Your task to perform on an android device: clear all cookies in the chrome app Image 0: 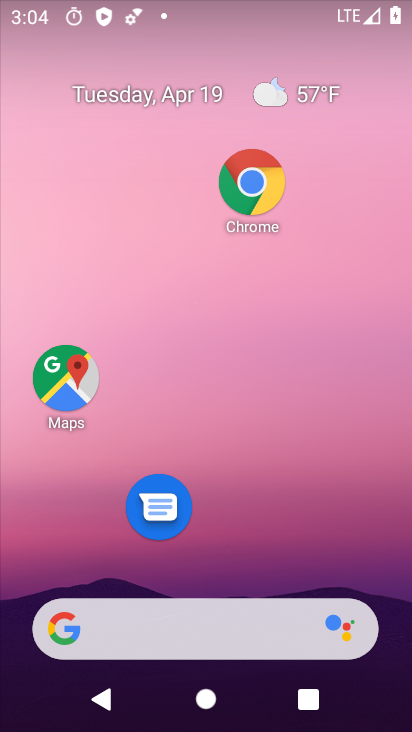
Step 0: drag from (246, 548) to (274, 162)
Your task to perform on an android device: clear all cookies in the chrome app Image 1: 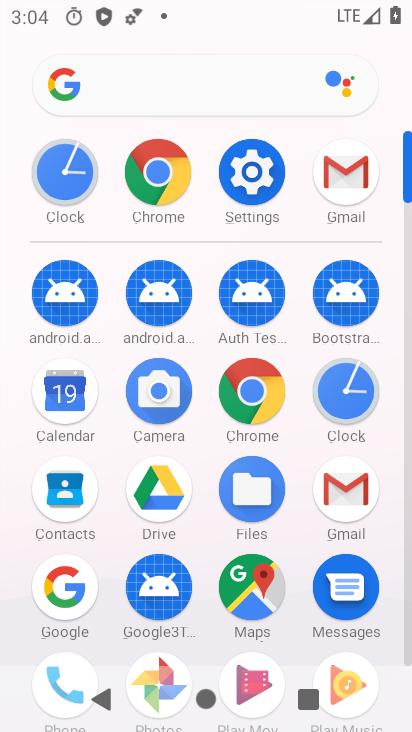
Step 1: click (273, 402)
Your task to perform on an android device: clear all cookies in the chrome app Image 2: 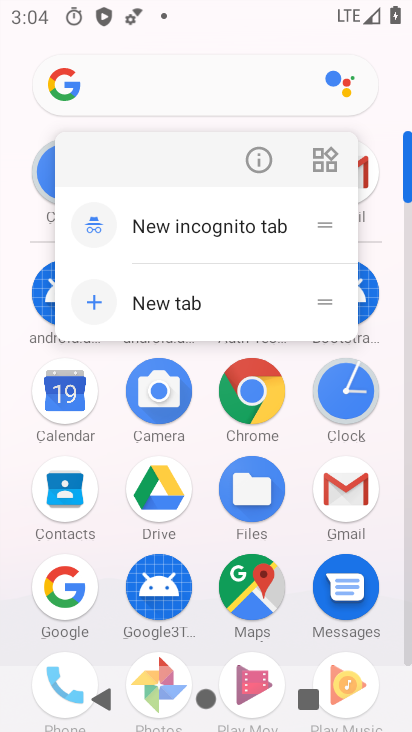
Step 2: click (272, 402)
Your task to perform on an android device: clear all cookies in the chrome app Image 3: 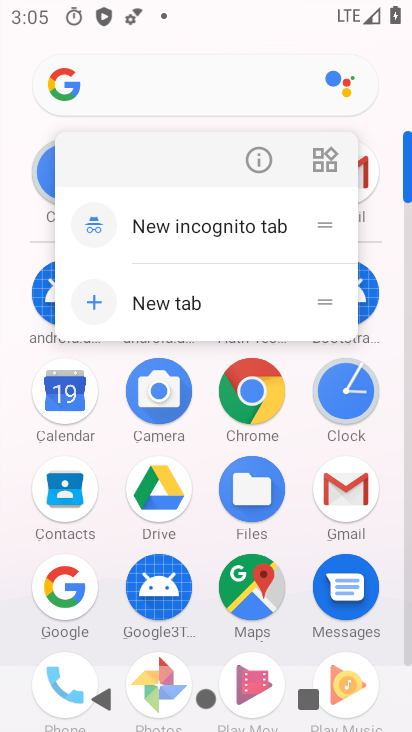
Step 3: click (265, 411)
Your task to perform on an android device: clear all cookies in the chrome app Image 4: 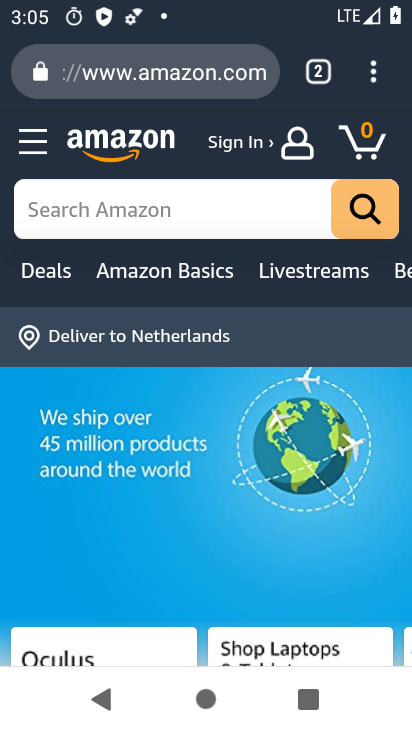
Step 4: click (374, 80)
Your task to perform on an android device: clear all cookies in the chrome app Image 5: 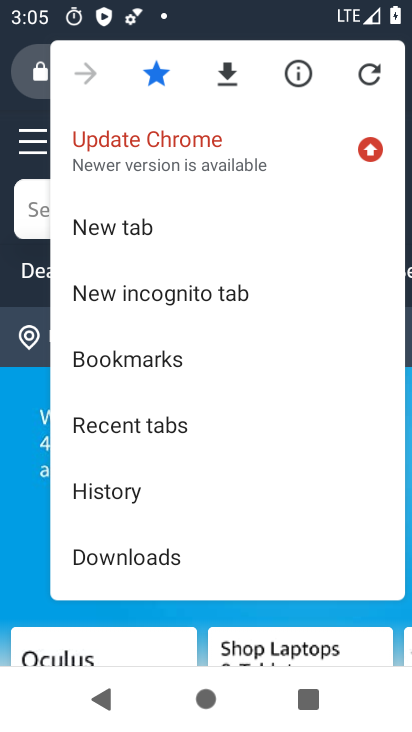
Step 5: drag from (329, 435) to (358, 142)
Your task to perform on an android device: clear all cookies in the chrome app Image 6: 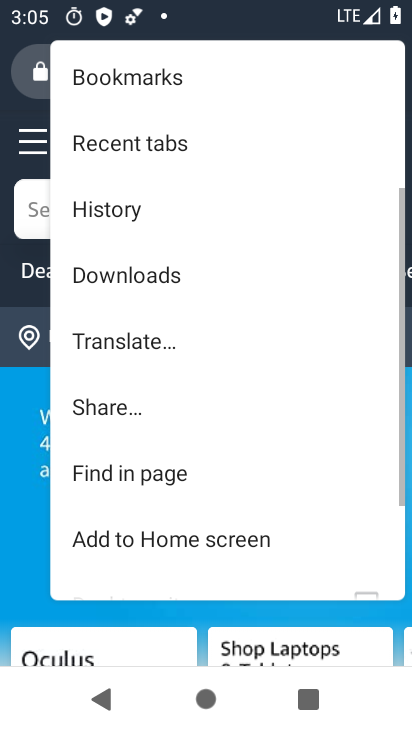
Step 6: drag from (247, 400) to (243, 163)
Your task to perform on an android device: clear all cookies in the chrome app Image 7: 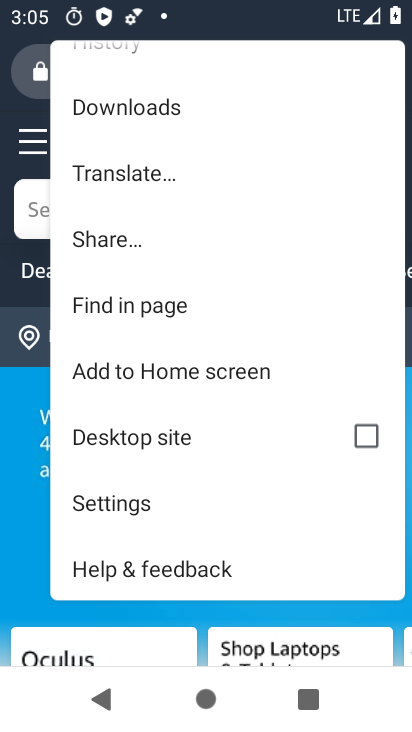
Step 7: click (209, 509)
Your task to perform on an android device: clear all cookies in the chrome app Image 8: 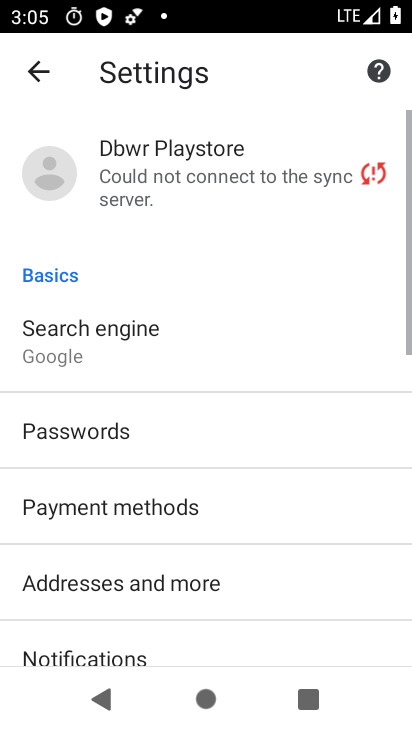
Step 8: drag from (200, 524) to (235, 211)
Your task to perform on an android device: clear all cookies in the chrome app Image 9: 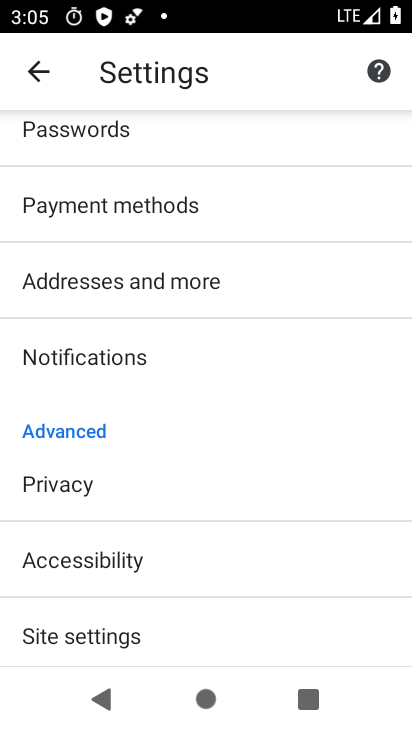
Step 9: click (110, 705)
Your task to perform on an android device: clear all cookies in the chrome app Image 10: 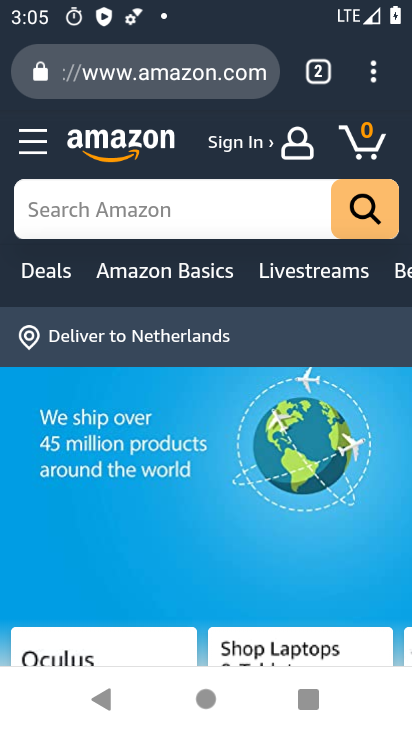
Step 10: click (375, 77)
Your task to perform on an android device: clear all cookies in the chrome app Image 11: 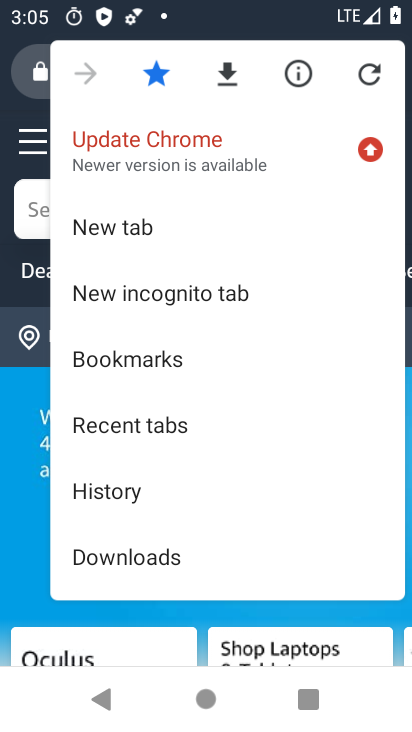
Step 11: click (140, 488)
Your task to perform on an android device: clear all cookies in the chrome app Image 12: 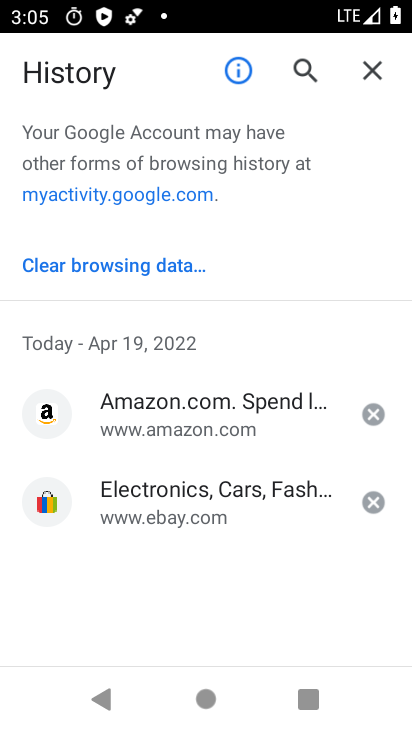
Step 12: click (154, 268)
Your task to perform on an android device: clear all cookies in the chrome app Image 13: 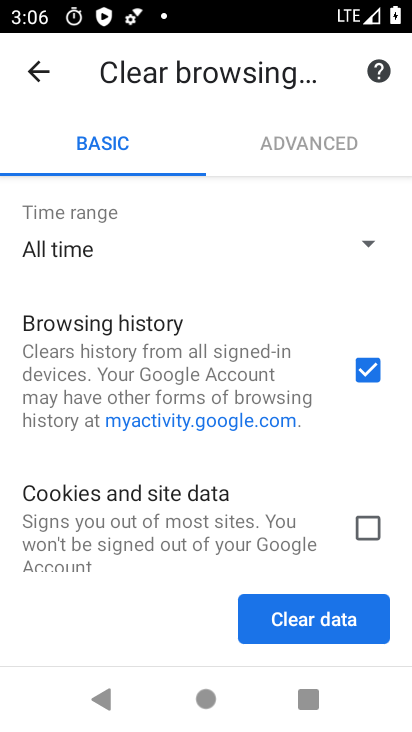
Step 13: click (370, 368)
Your task to perform on an android device: clear all cookies in the chrome app Image 14: 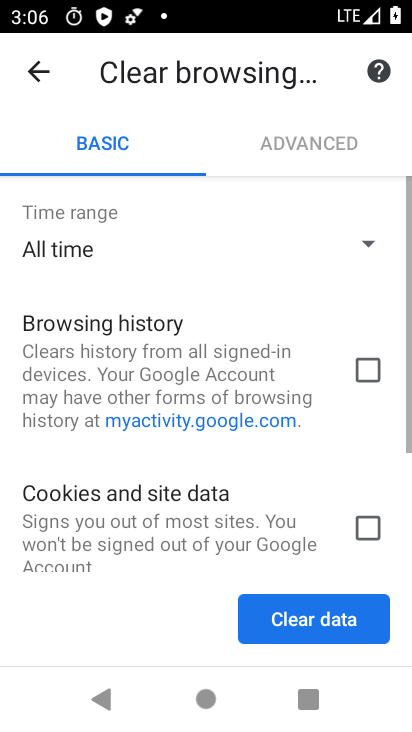
Step 14: click (370, 531)
Your task to perform on an android device: clear all cookies in the chrome app Image 15: 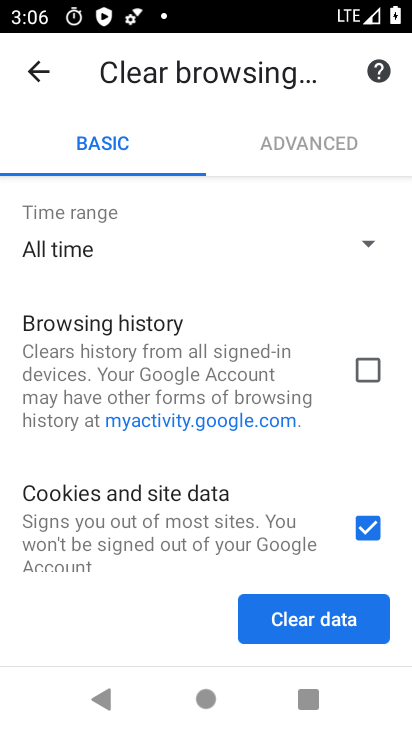
Step 15: click (337, 623)
Your task to perform on an android device: clear all cookies in the chrome app Image 16: 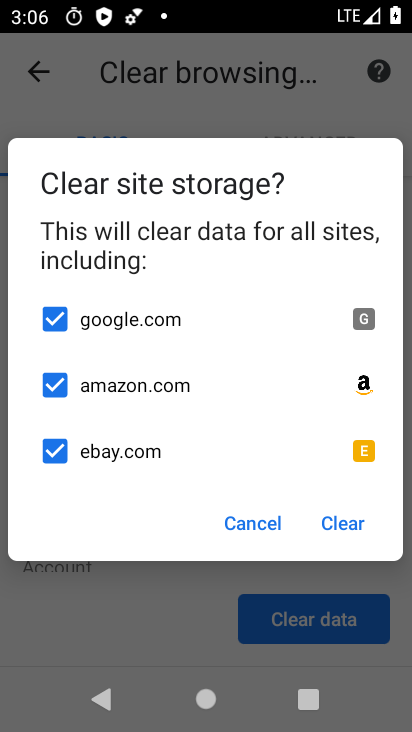
Step 16: click (338, 526)
Your task to perform on an android device: clear all cookies in the chrome app Image 17: 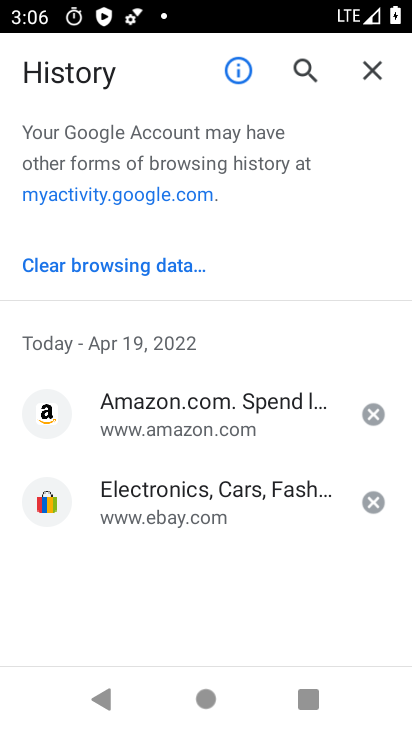
Step 17: task complete